Your task to perform on an android device: Search for sushi restaurants on Maps Image 0: 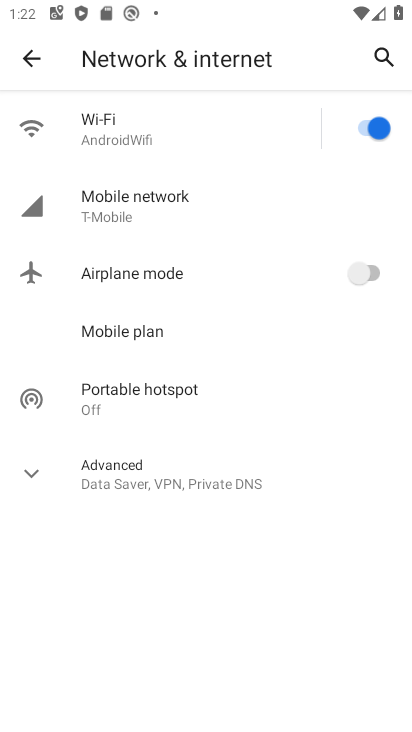
Step 0: press home button
Your task to perform on an android device: Search for sushi restaurants on Maps Image 1: 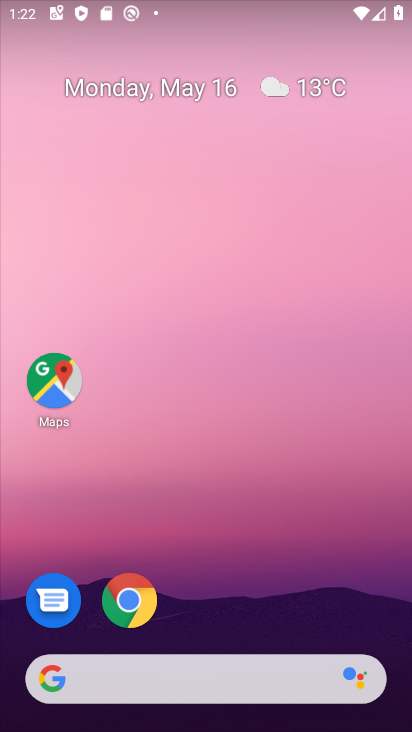
Step 1: click (44, 376)
Your task to perform on an android device: Search for sushi restaurants on Maps Image 2: 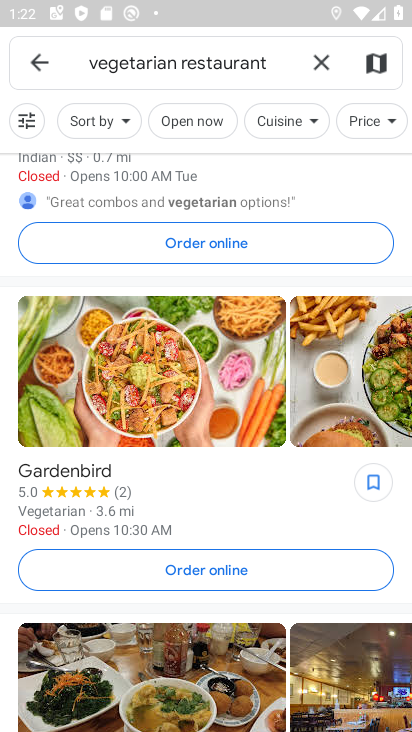
Step 2: click (318, 60)
Your task to perform on an android device: Search for sushi restaurants on Maps Image 3: 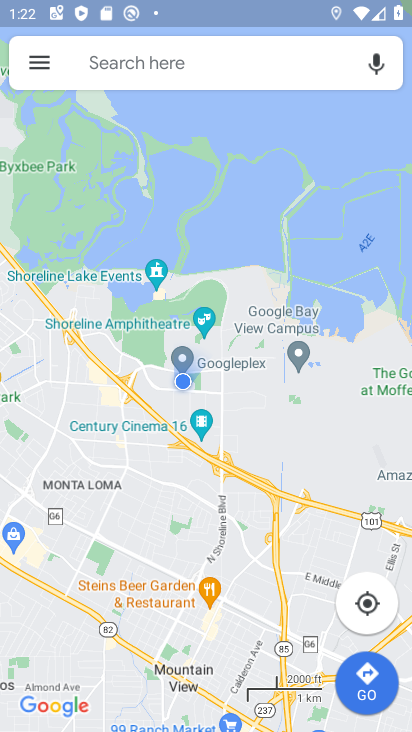
Step 3: click (170, 67)
Your task to perform on an android device: Search for sushi restaurants on Maps Image 4: 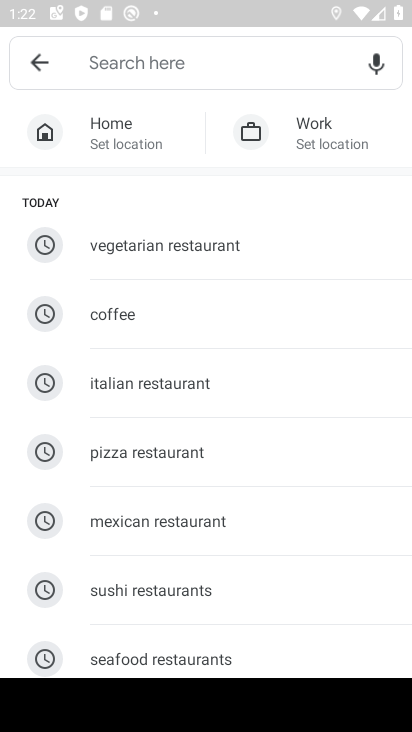
Step 4: click (155, 589)
Your task to perform on an android device: Search for sushi restaurants on Maps Image 5: 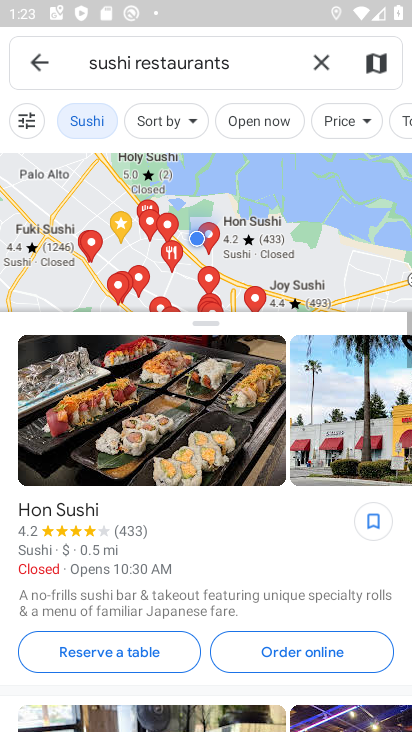
Step 5: task complete